Your task to perform on an android device: Empty the shopping cart on walmart.com. Search for razer blade on walmart.com, select the first entry, add it to the cart, then select checkout. Image 0: 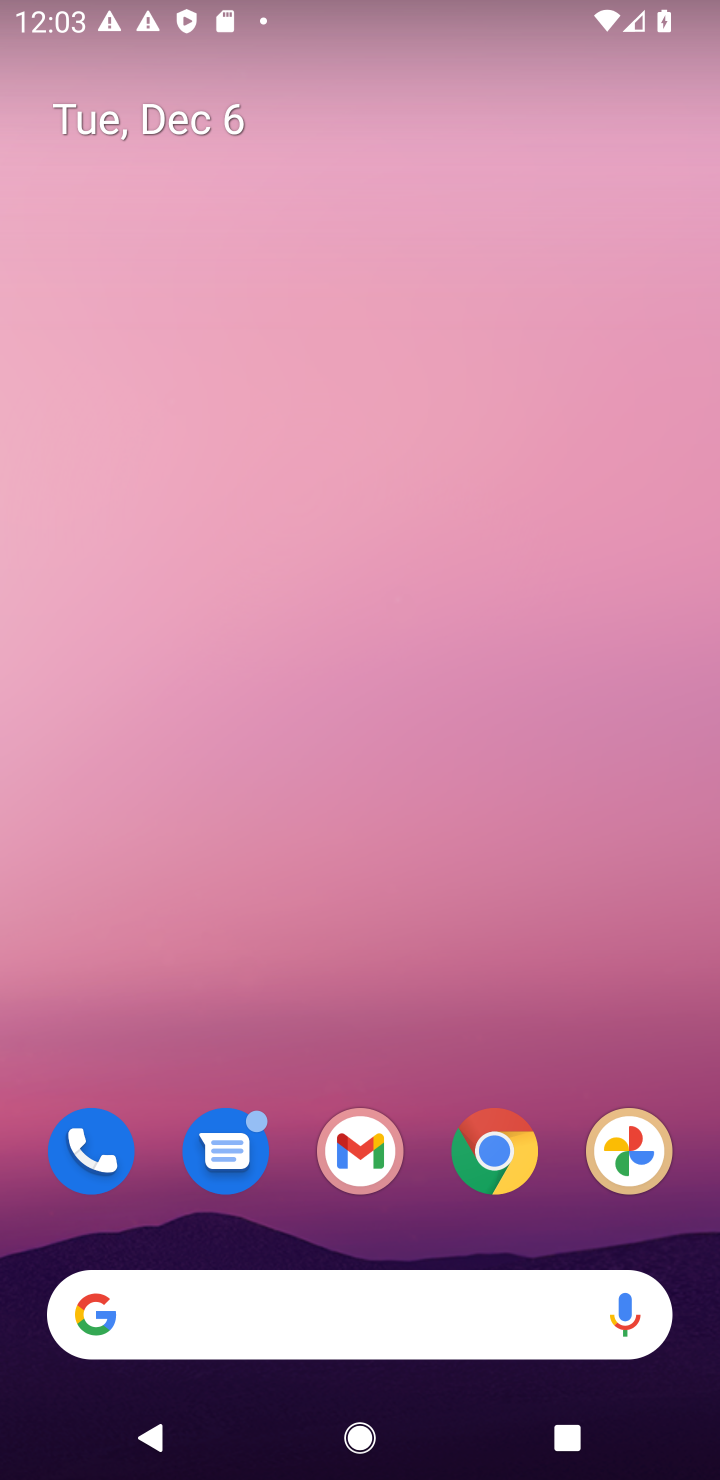
Step 0: click (499, 1159)
Your task to perform on an android device: Empty the shopping cart on walmart.com. Search for razer blade on walmart.com, select the first entry, add it to the cart, then select checkout. Image 1: 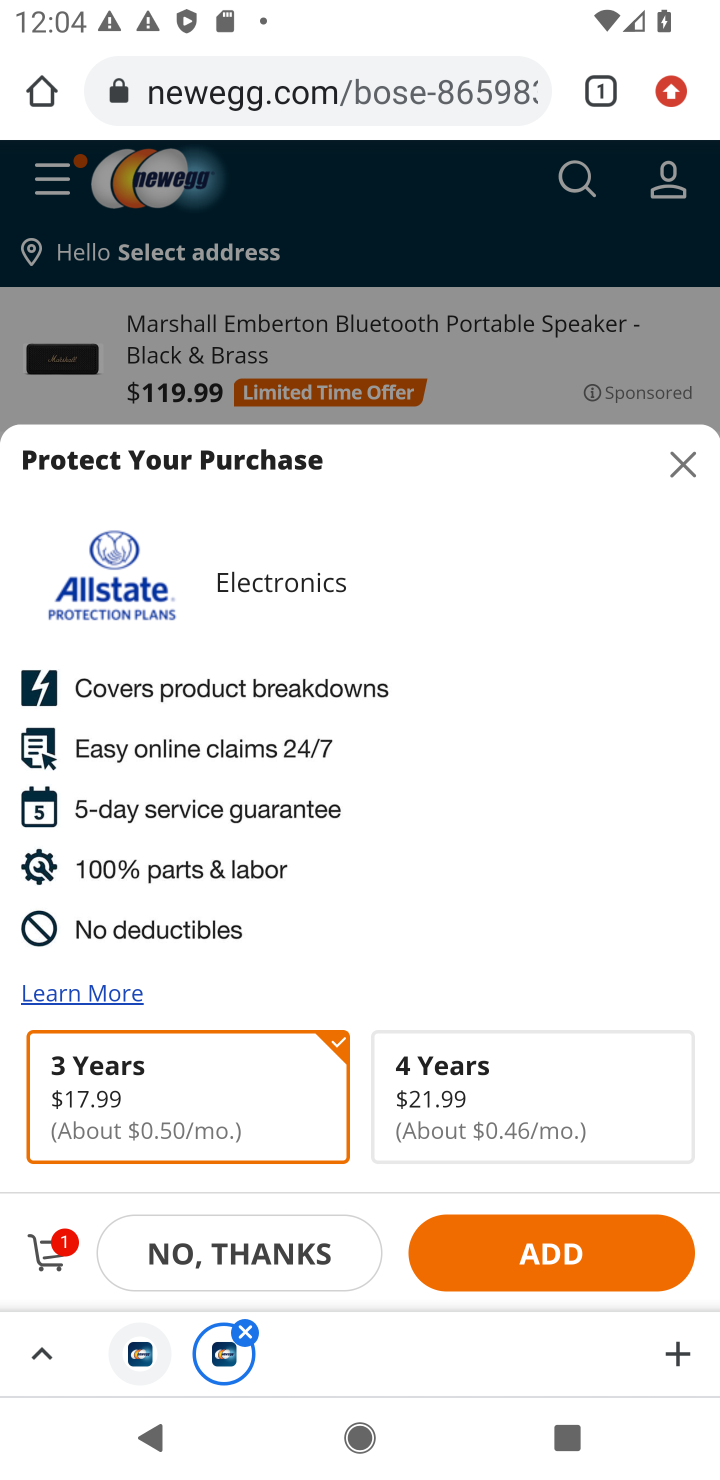
Step 1: click (294, 100)
Your task to perform on an android device: Empty the shopping cart on walmart.com. Search for razer blade on walmart.com, select the first entry, add it to the cart, then select checkout. Image 2: 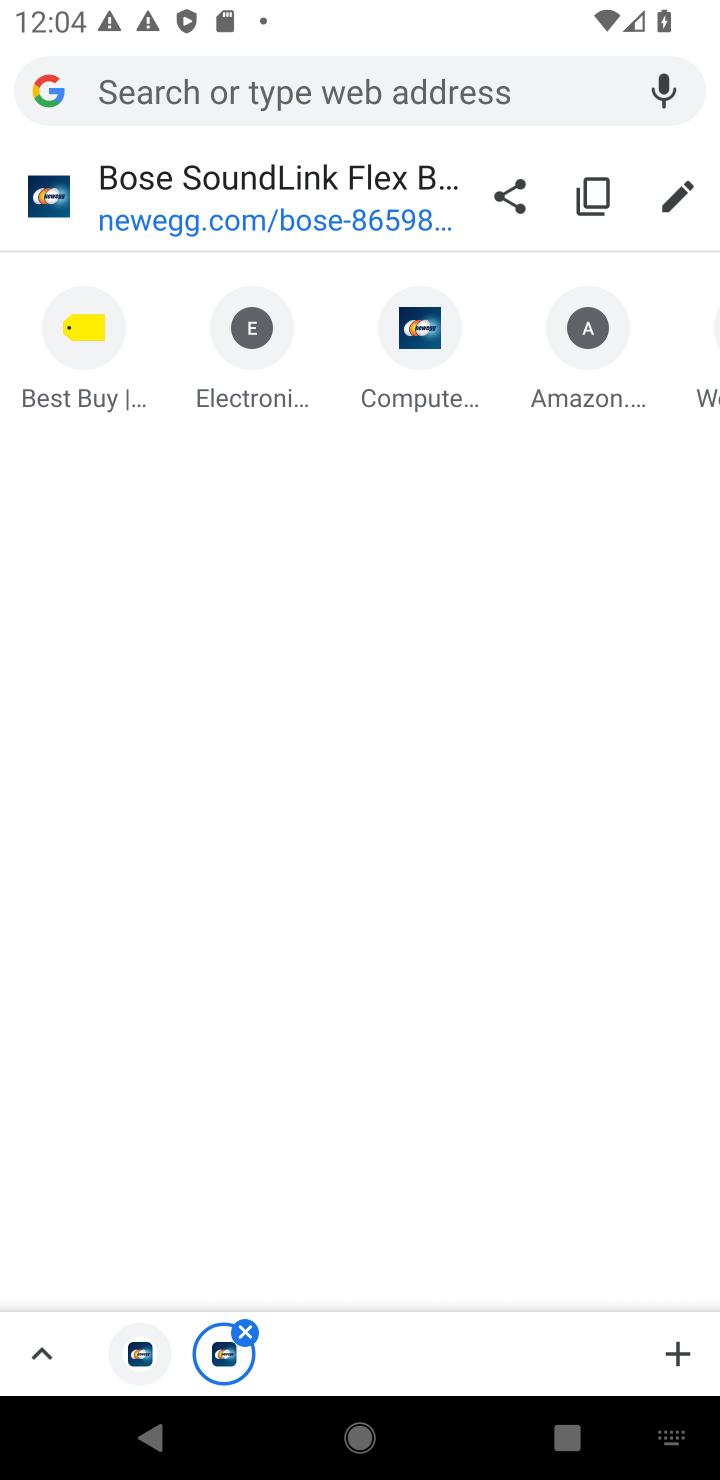
Step 2: type "almart.com"
Your task to perform on an android device: Empty the shopping cart on walmart.com. Search for razer blade on walmart.com, select the first entry, add it to the cart, then select checkout. Image 3: 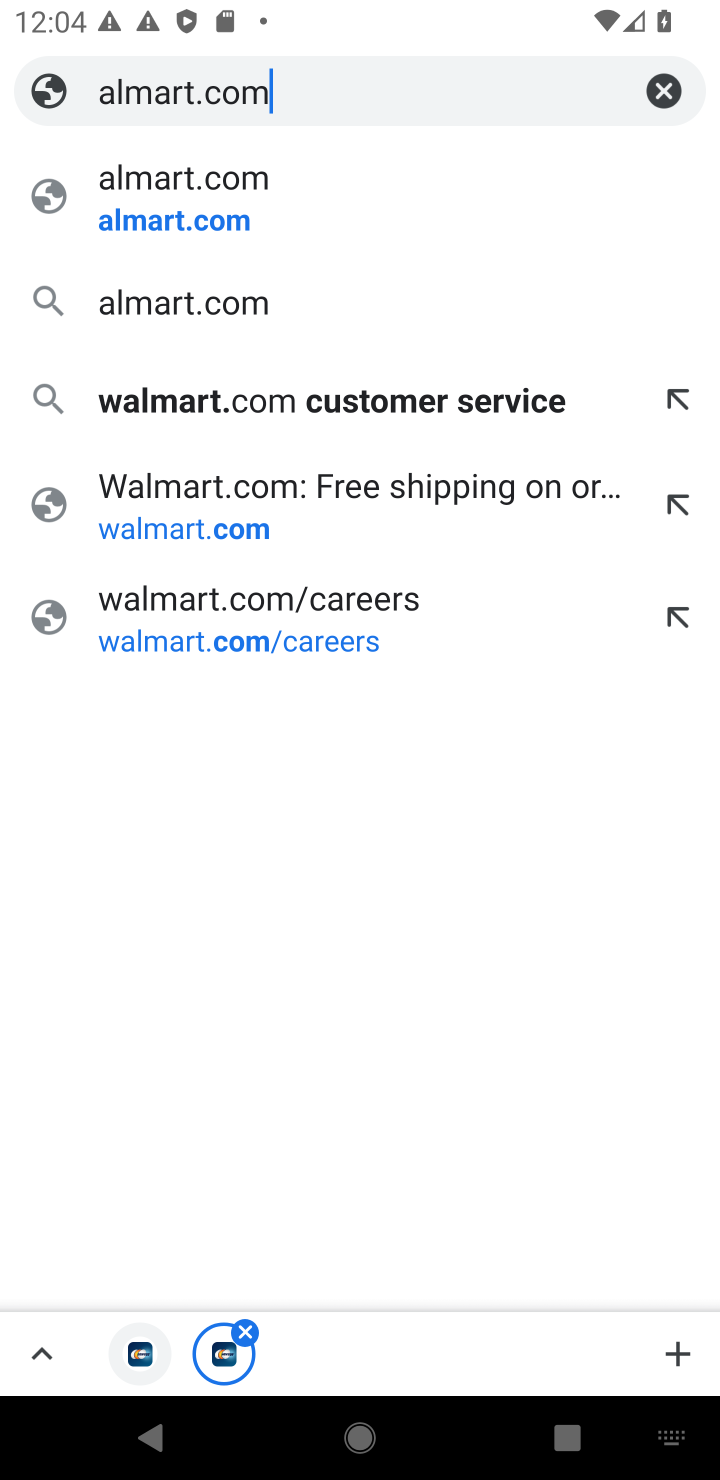
Step 3: click (136, 522)
Your task to perform on an android device: Empty the shopping cart on walmart.com. Search for razer blade on walmart.com, select the first entry, add it to the cart, then select checkout. Image 4: 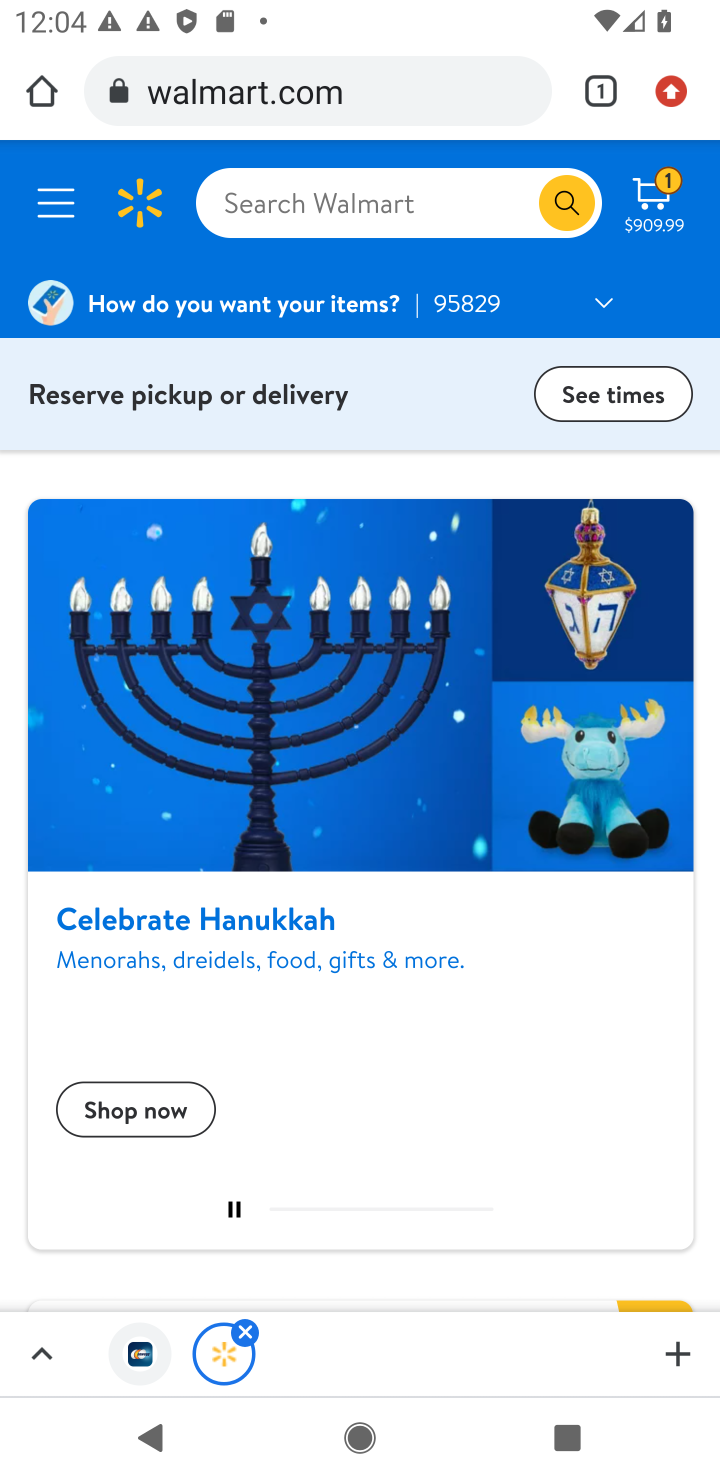
Step 4: click (662, 195)
Your task to perform on an android device: Empty the shopping cart on walmart.com. Search for razer blade on walmart.com, select the first entry, add it to the cart, then select checkout. Image 5: 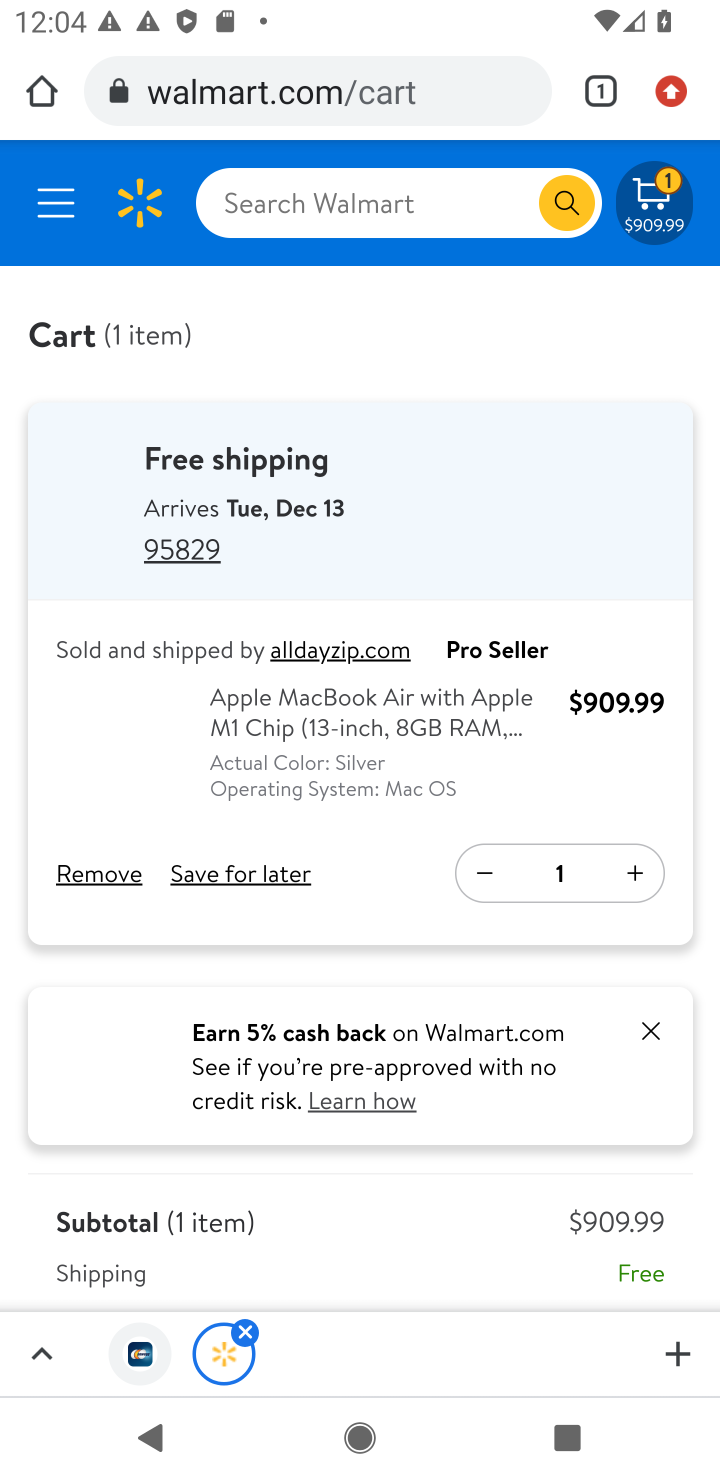
Step 5: click (84, 876)
Your task to perform on an android device: Empty the shopping cart on walmart.com. Search for razer blade on walmart.com, select the first entry, add it to the cart, then select checkout. Image 6: 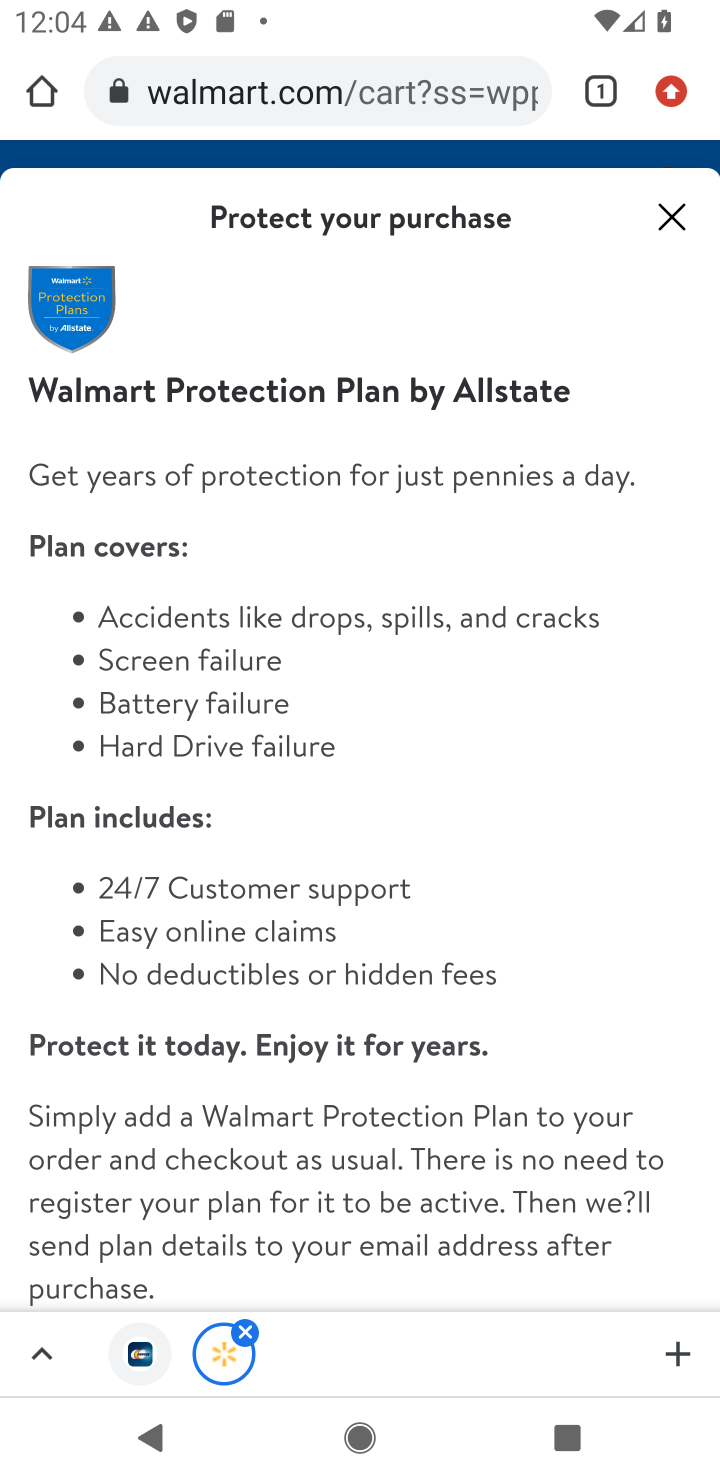
Step 6: click (678, 226)
Your task to perform on an android device: Empty the shopping cart on walmart.com. Search for razer blade on walmart.com, select the first entry, add it to the cart, then select checkout. Image 7: 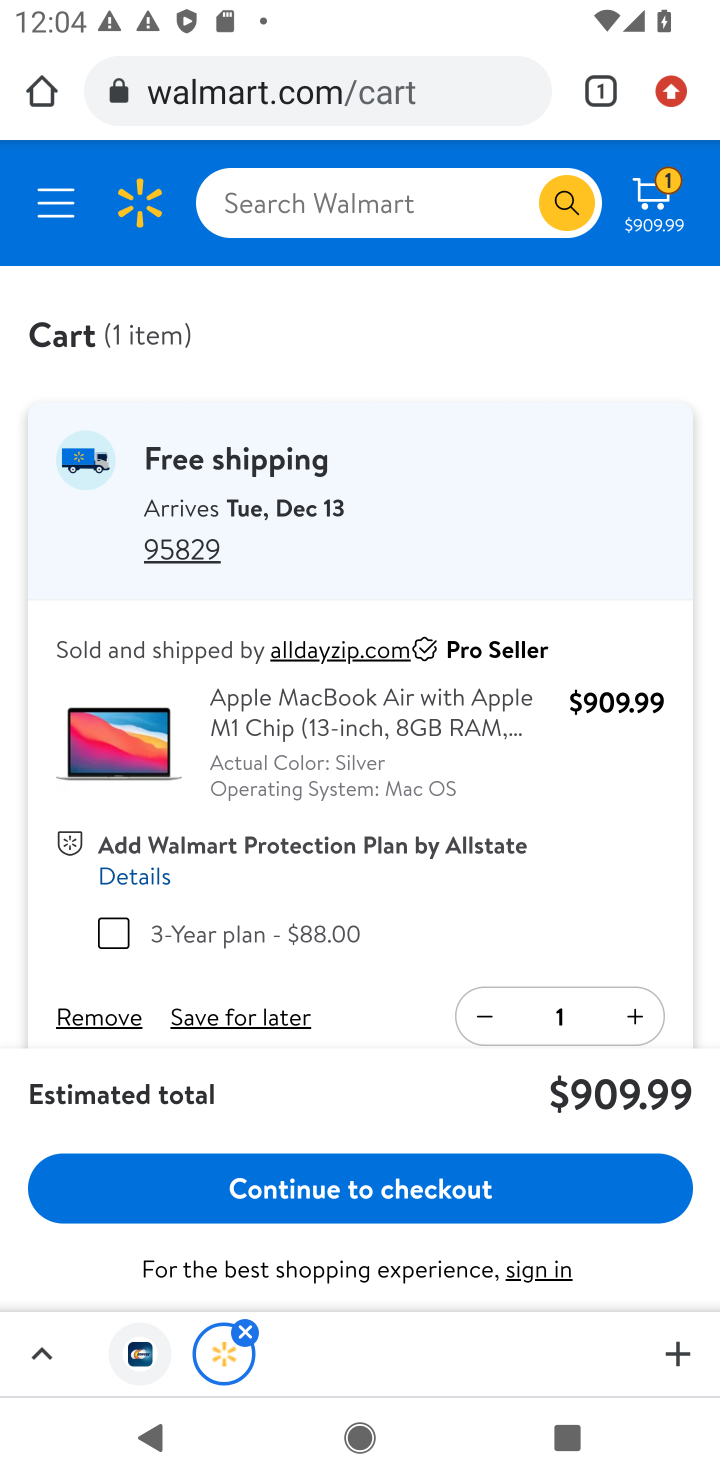
Step 7: click (98, 1012)
Your task to perform on an android device: Empty the shopping cart on walmart.com. Search for razer blade on walmart.com, select the first entry, add it to the cart, then select checkout. Image 8: 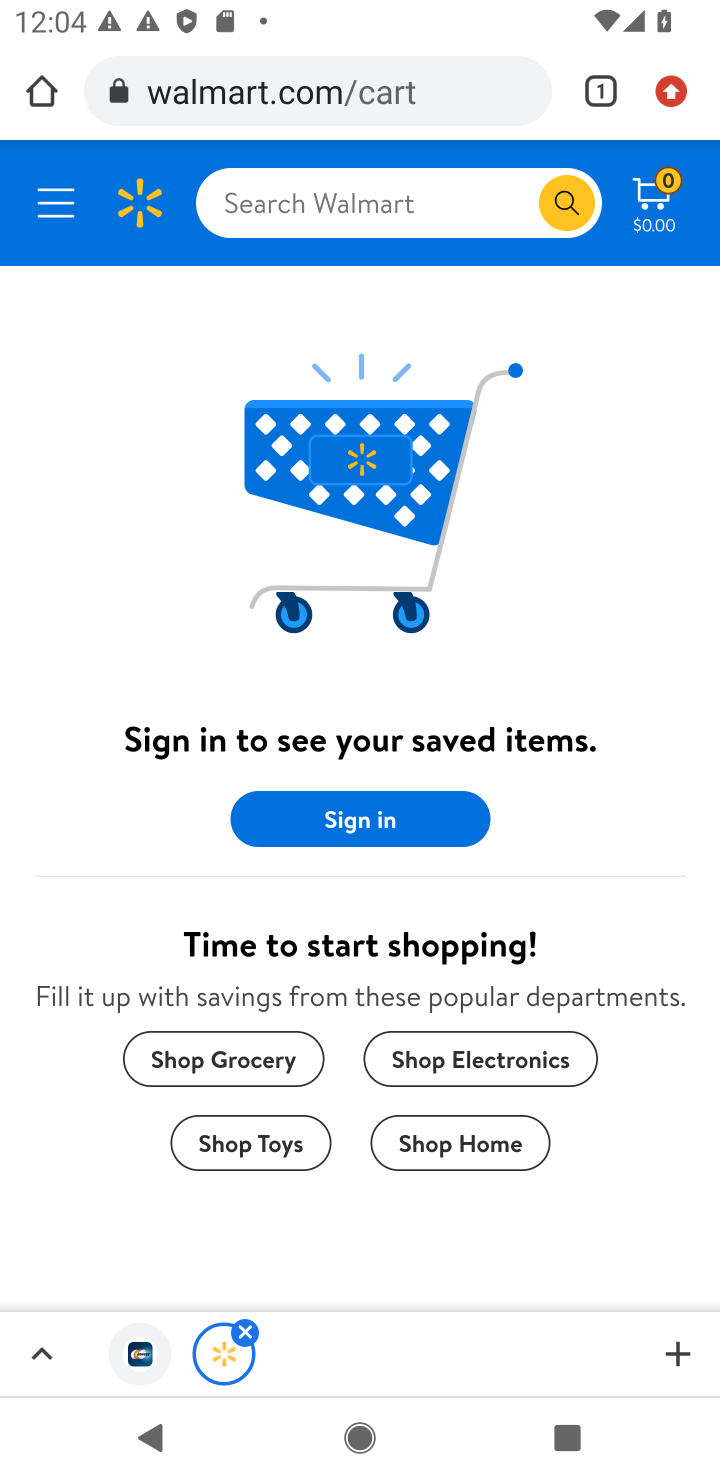
Step 8: click (359, 205)
Your task to perform on an android device: Empty the shopping cart on walmart.com. Search for razer blade on walmart.com, select the first entry, add it to the cart, then select checkout. Image 9: 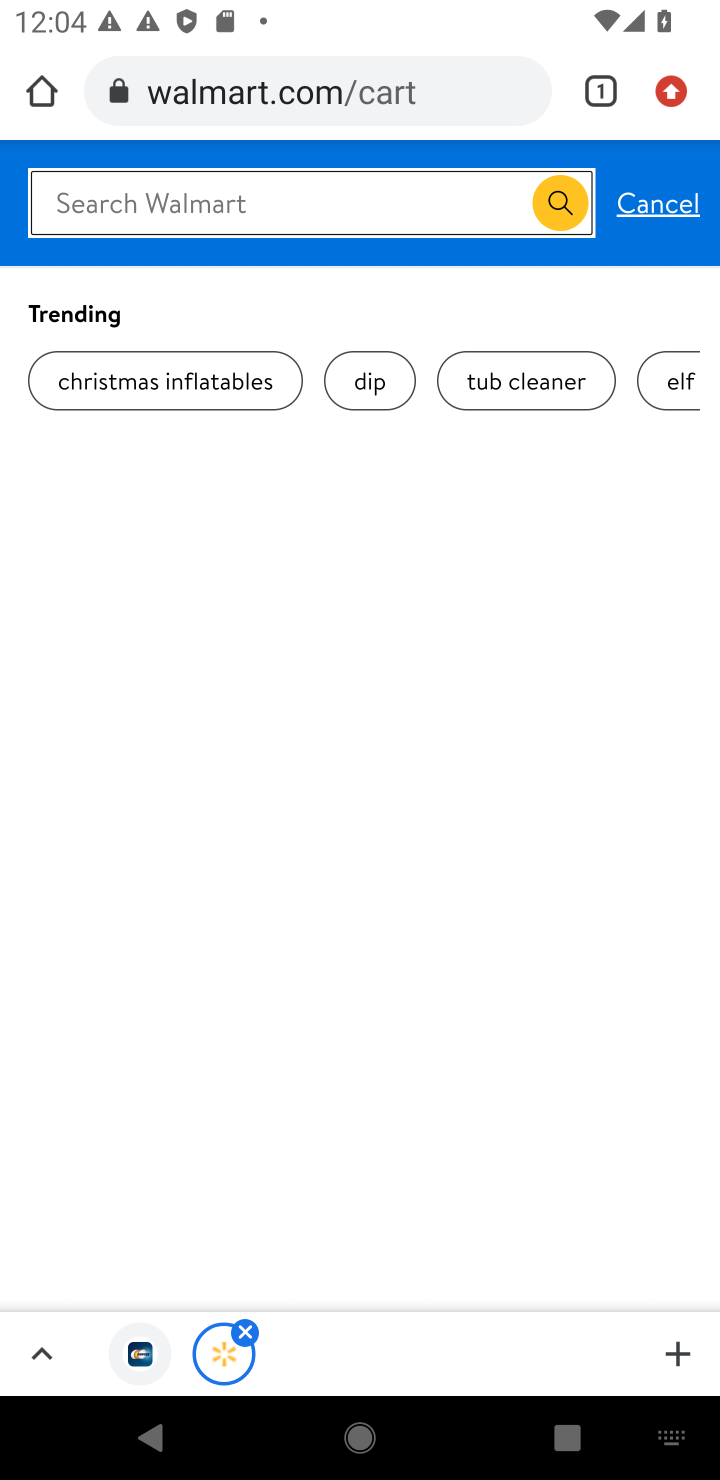
Step 9: type "razer blade"
Your task to perform on an android device: Empty the shopping cart on walmart.com. Search for razer blade on walmart.com, select the first entry, add it to the cart, then select checkout. Image 10: 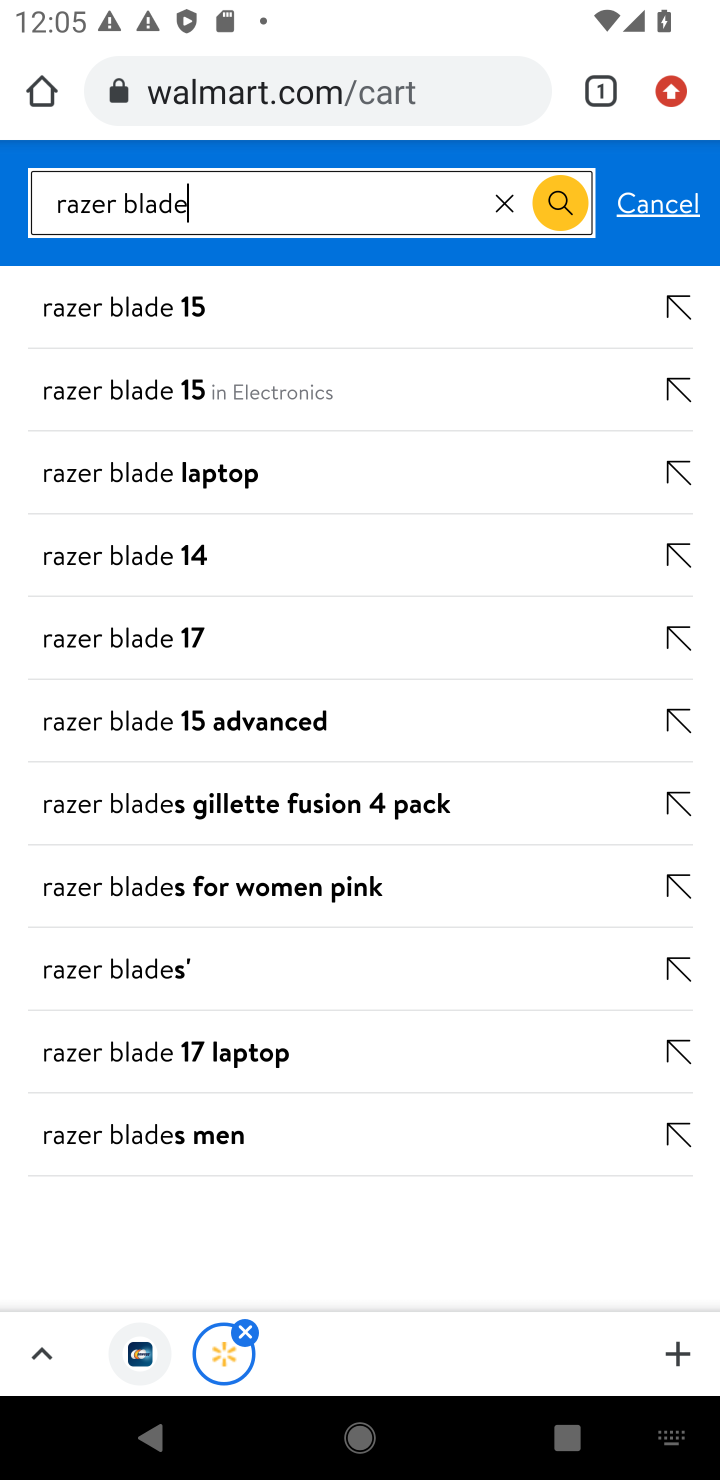
Step 10: click (131, 310)
Your task to perform on an android device: Empty the shopping cart on walmart.com. Search for razer blade on walmart.com, select the first entry, add it to the cart, then select checkout. Image 11: 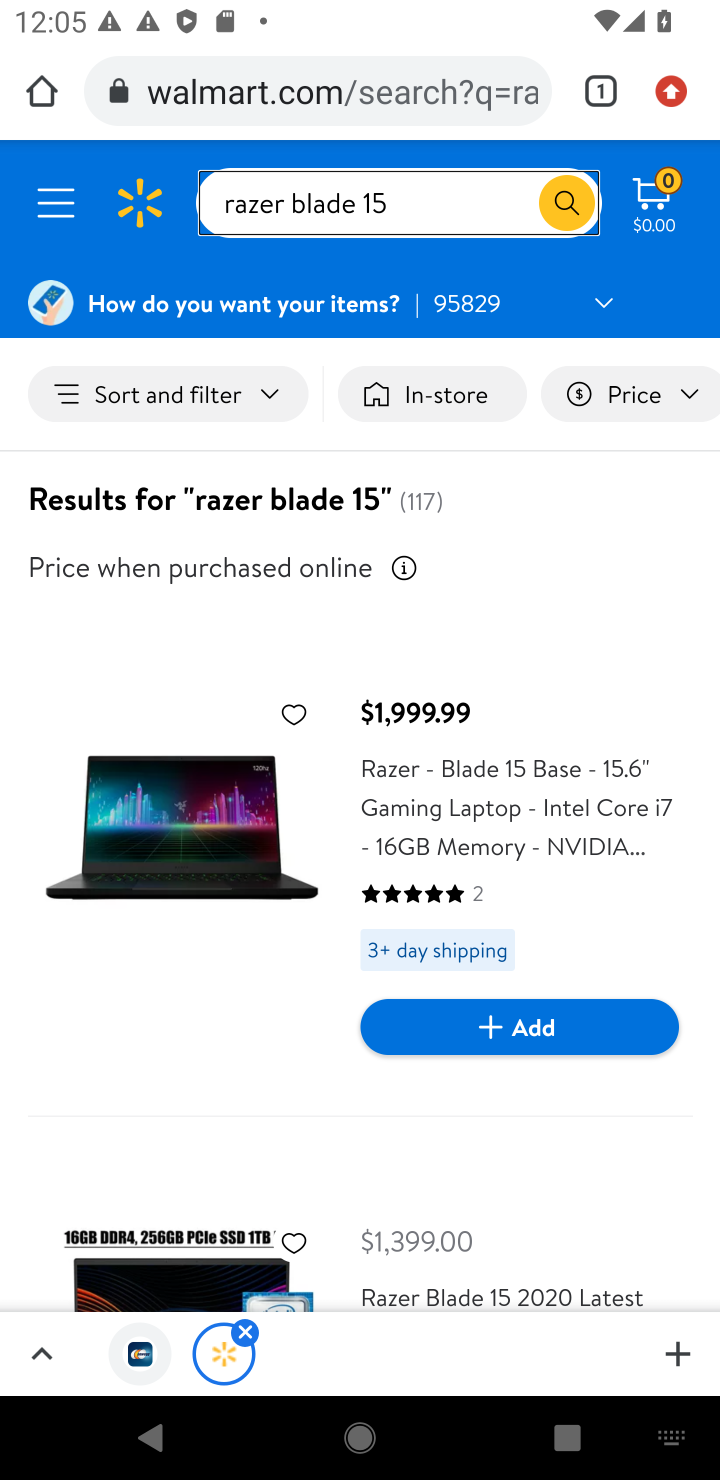
Step 11: click (510, 1026)
Your task to perform on an android device: Empty the shopping cart on walmart.com. Search for razer blade on walmart.com, select the first entry, add it to the cart, then select checkout. Image 12: 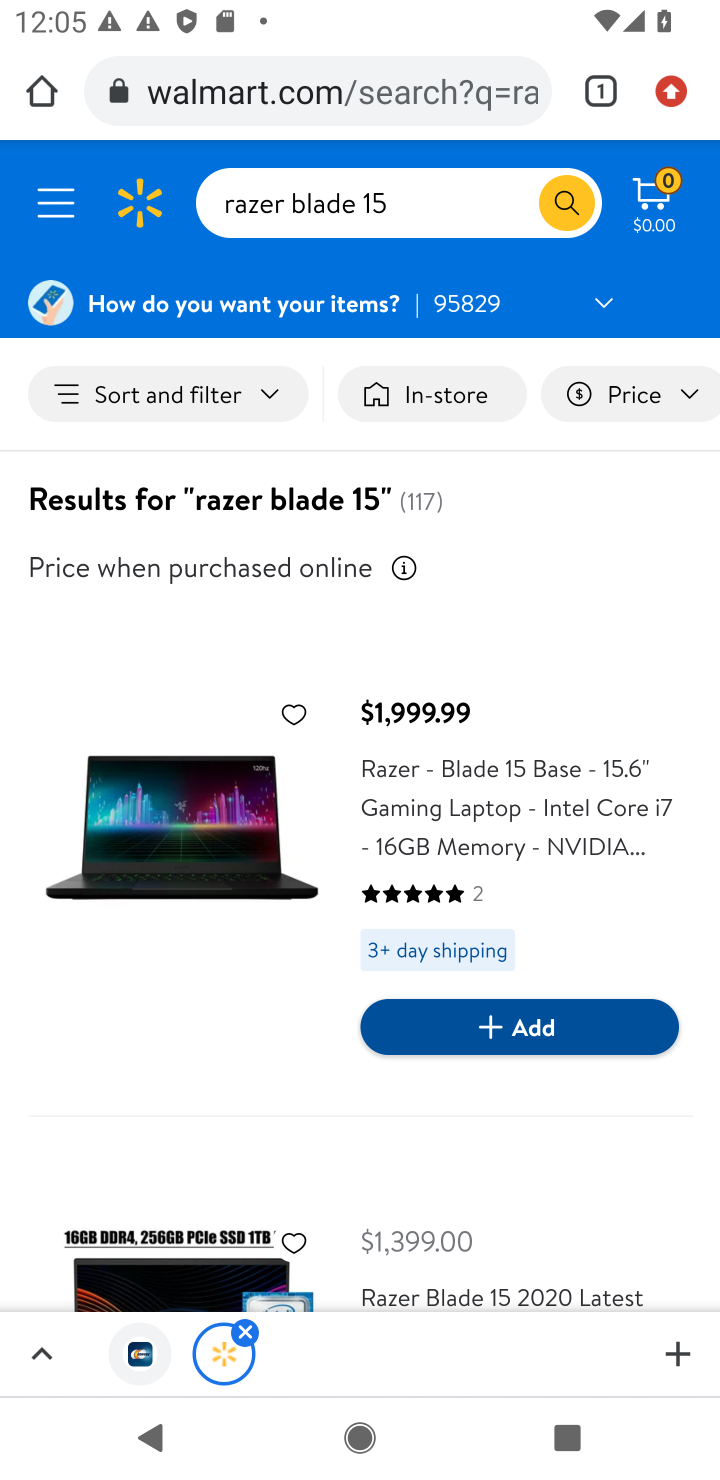
Step 12: click (510, 1032)
Your task to perform on an android device: Empty the shopping cart on walmart.com. Search for razer blade on walmart.com, select the first entry, add it to the cart, then select checkout. Image 13: 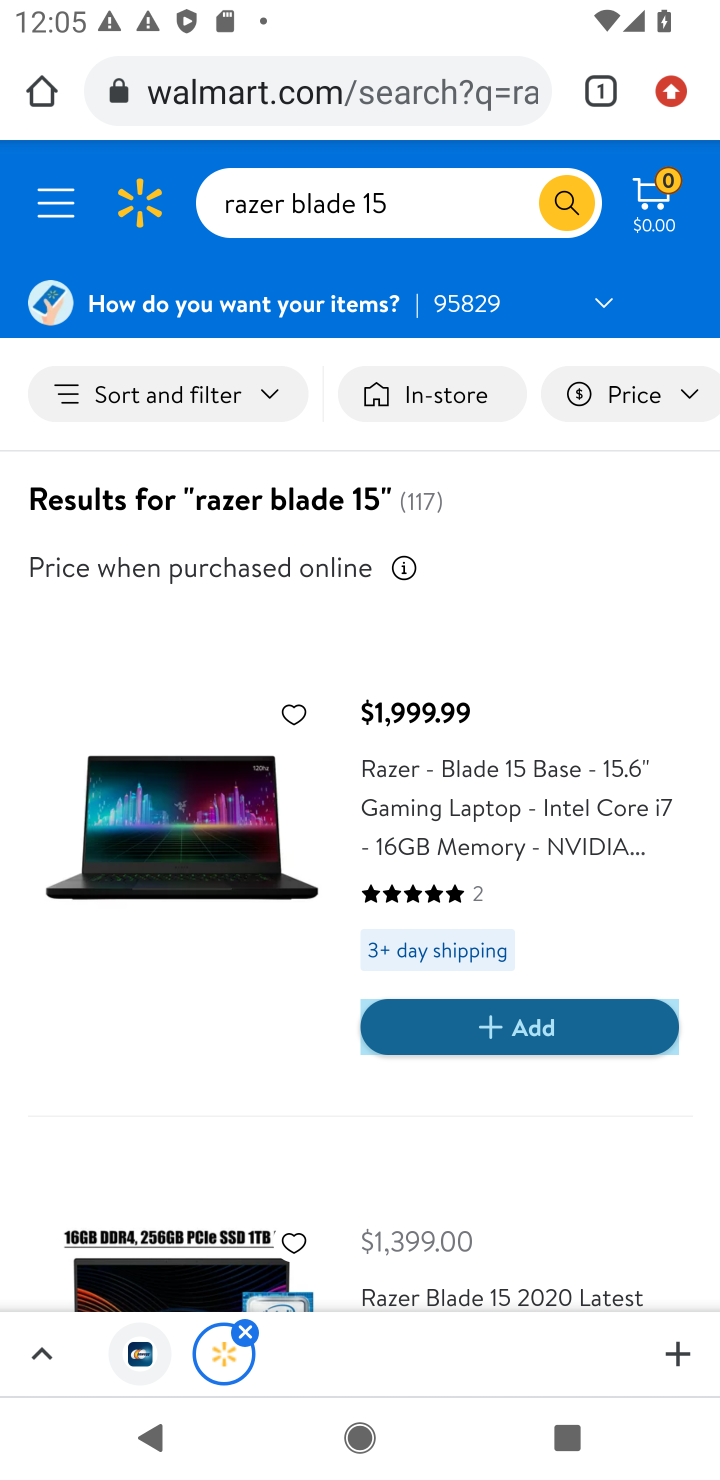
Step 13: click (532, 1039)
Your task to perform on an android device: Empty the shopping cart on walmart.com. Search for razer blade on walmart.com, select the first entry, add it to the cart, then select checkout. Image 14: 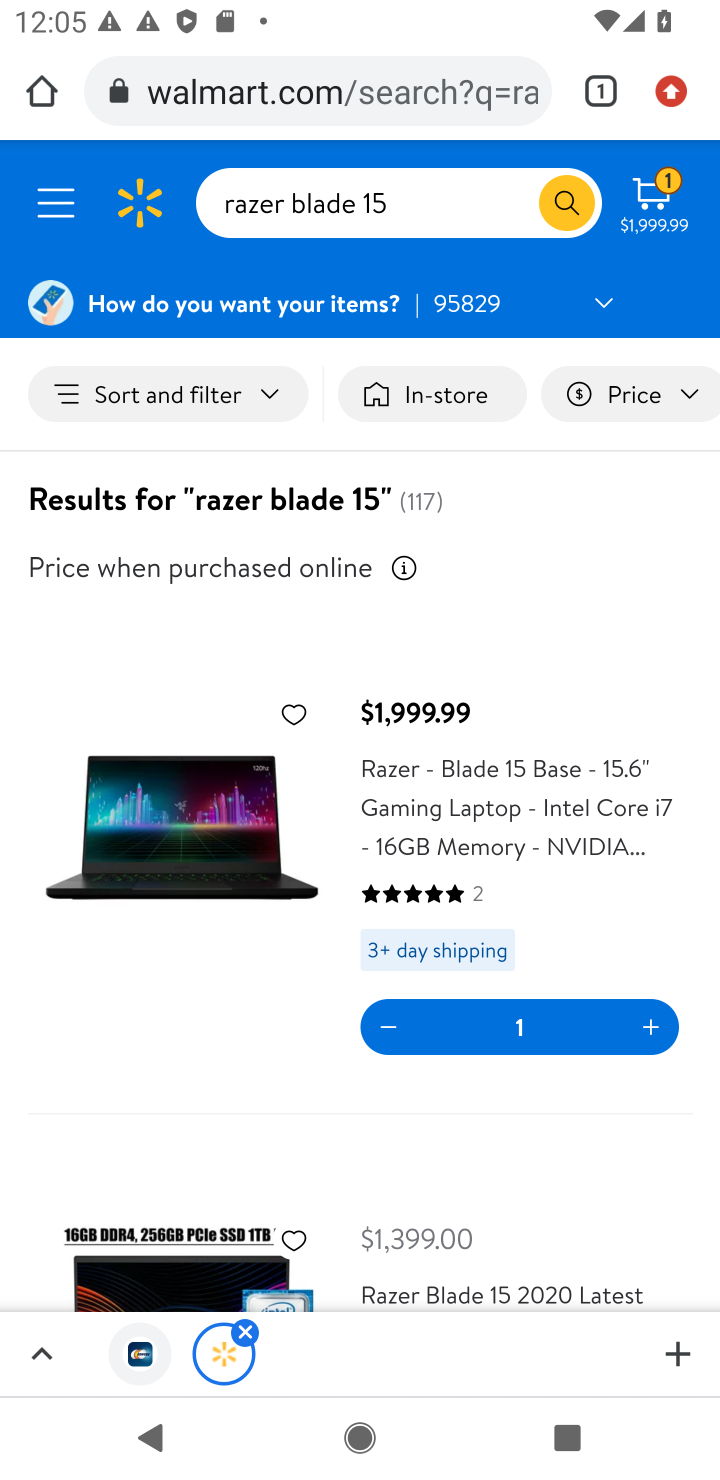
Step 14: click (661, 199)
Your task to perform on an android device: Empty the shopping cart on walmart.com. Search for razer blade on walmart.com, select the first entry, add it to the cart, then select checkout. Image 15: 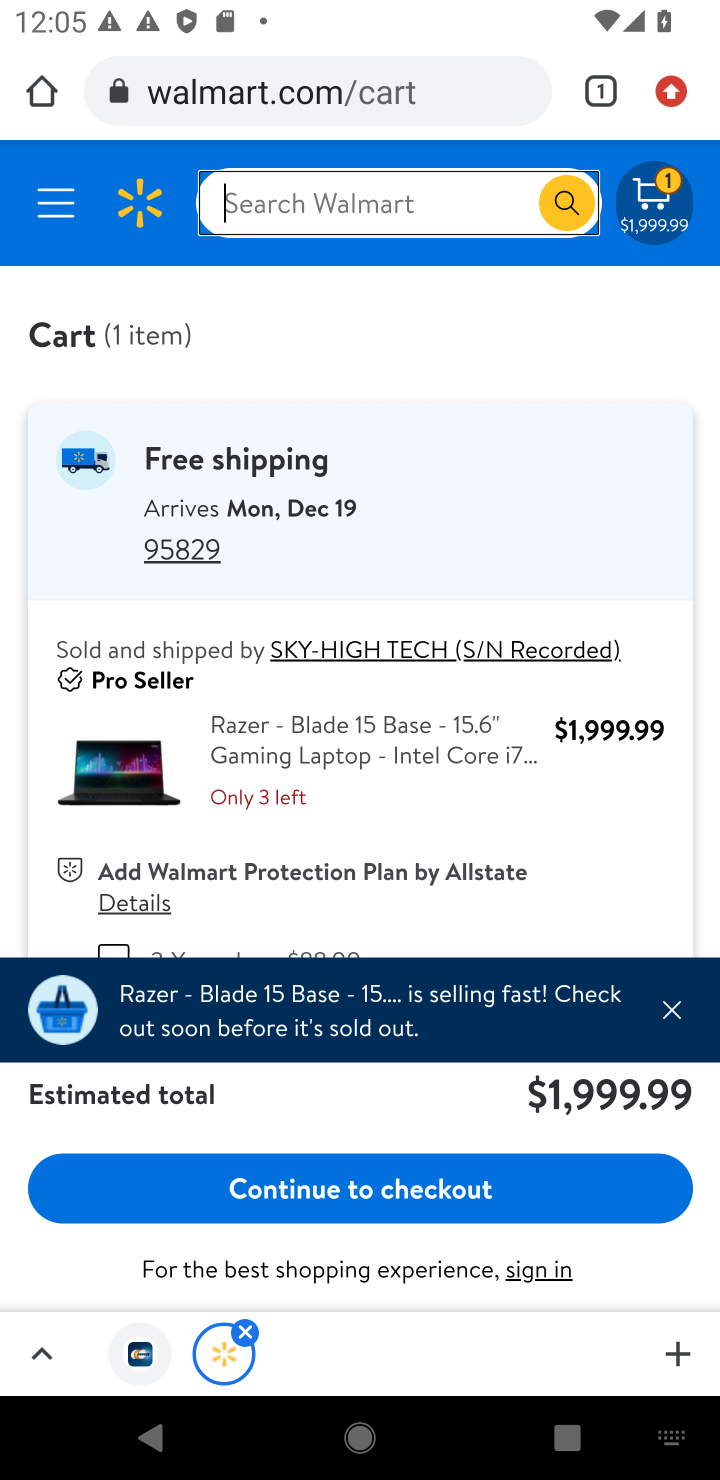
Step 15: click (260, 1178)
Your task to perform on an android device: Empty the shopping cart on walmart.com. Search for razer blade on walmart.com, select the first entry, add it to the cart, then select checkout. Image 16: 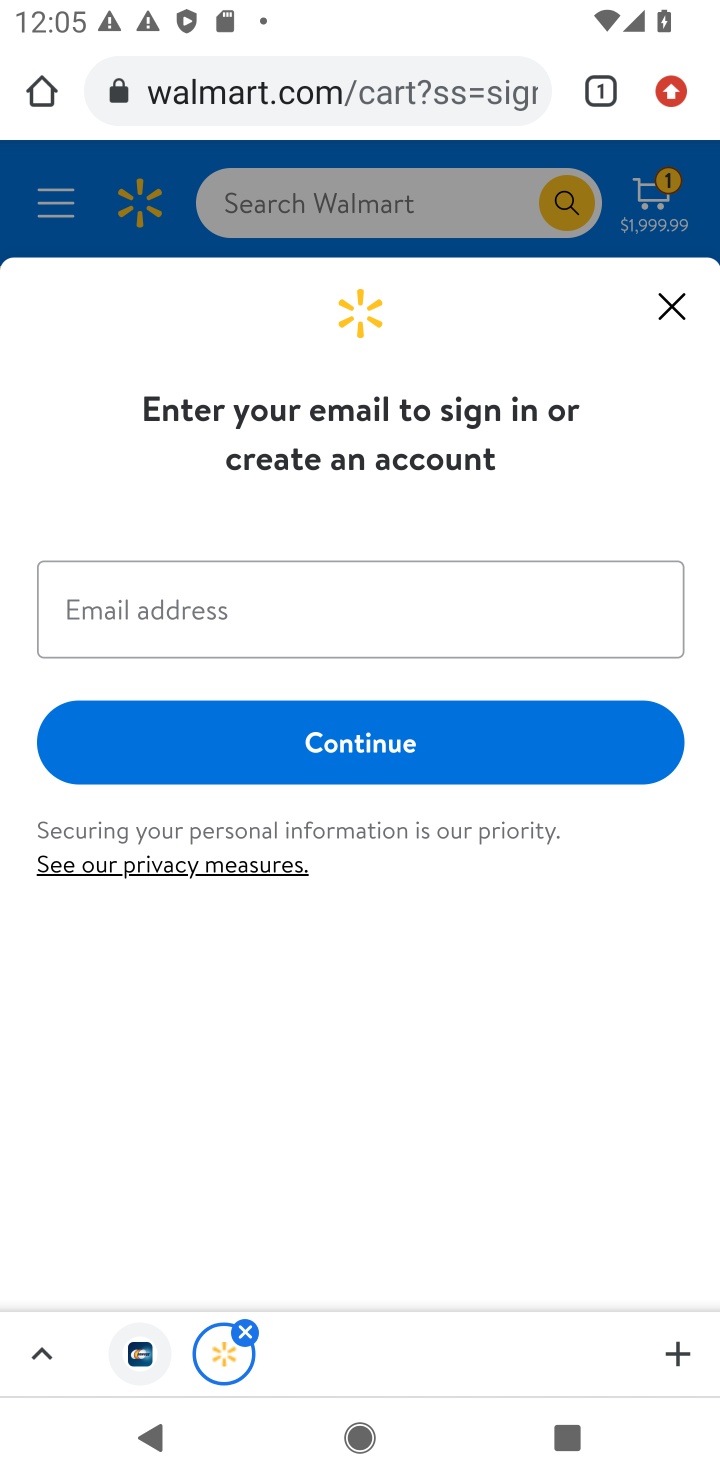
Step 16: task complete